Your task to perform on an android device: manage bookmarks in the chrome app Image 0: 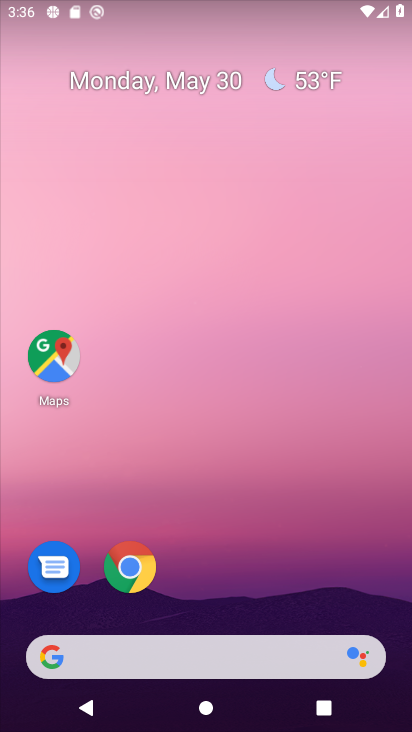
Step 0: drag from (279, 665) to (244, 55)
Your task to perform on an android device: manage bookmarks in the chrome app Image 1: 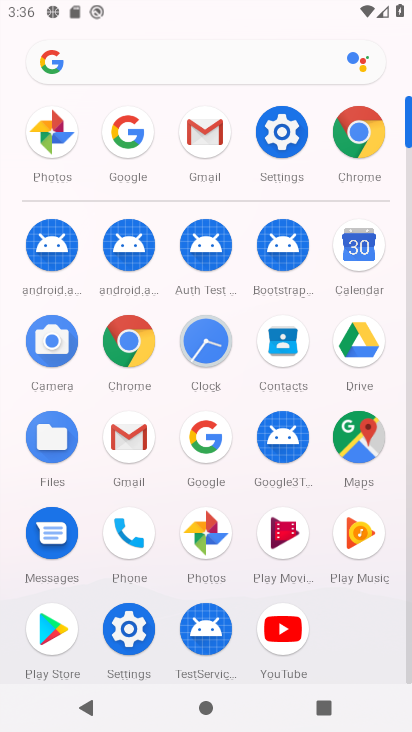
Step 1: click (132, 330)
Your task to perform on an android device: manage bookmarks in the chrome app Image 2: 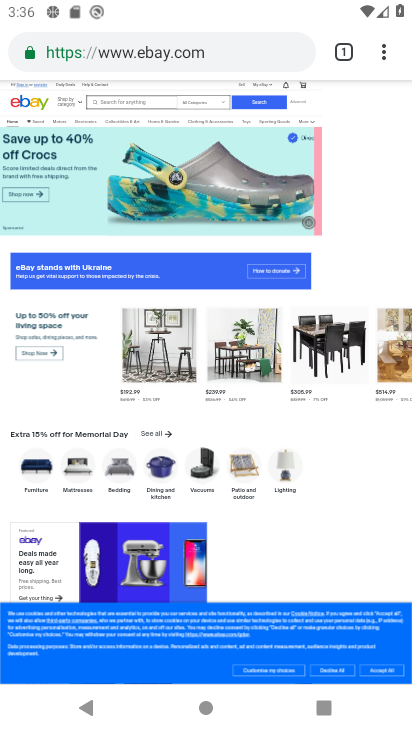
Step 2: task complete